Your task to perform on an android device: Open Yahoo.com Image 0: 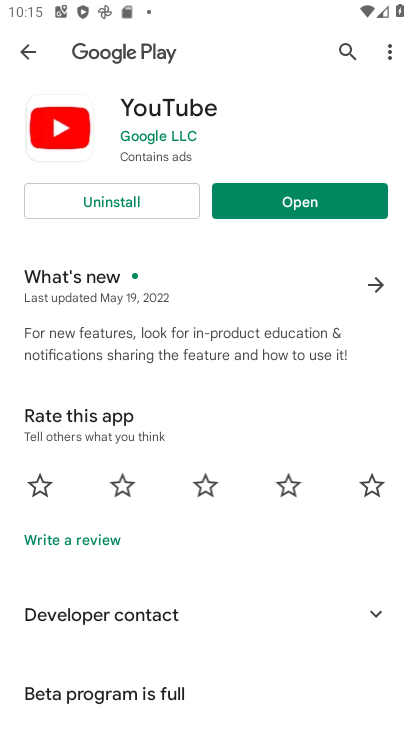
Step 0: press home button
Your task to perform on an android device: Open Yahoo.com Image 1: 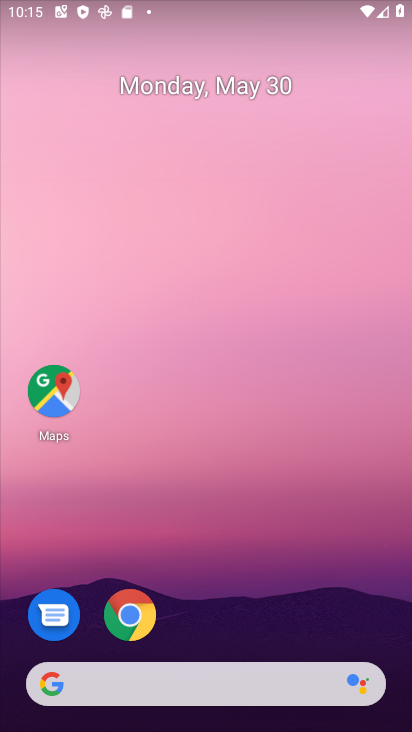
Step 1: click (137, 620)
Your task to perform on an android device: Open Yahoo.com Image 2: 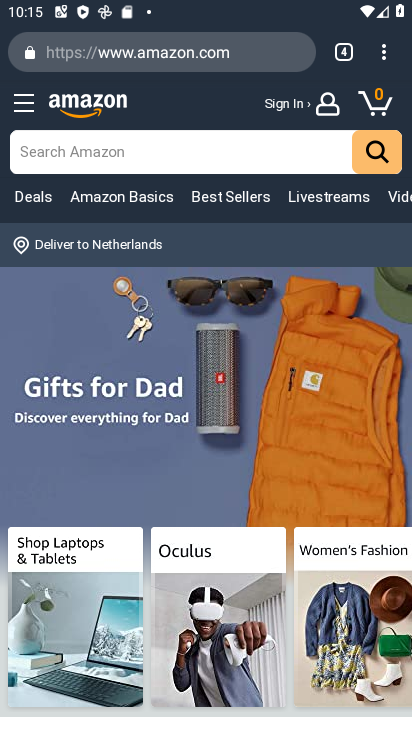
Step 2: click (338, 48)
Your task to perform on an android device: Open Yahoo.com Image 3: 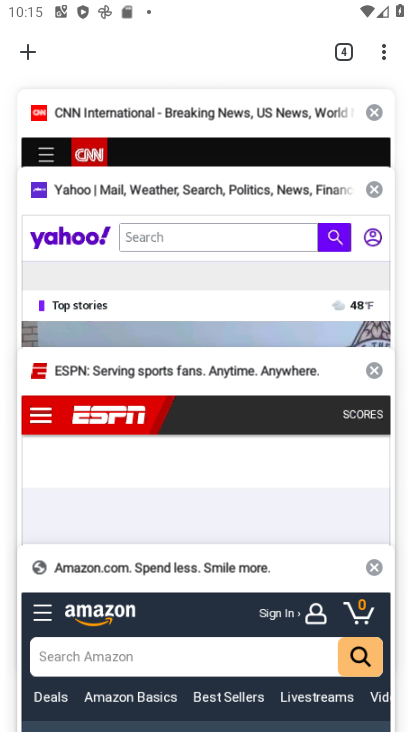
Step 3: click (83, 242)
Your task to perform on an android device: Open Yahoo.com Image 4: 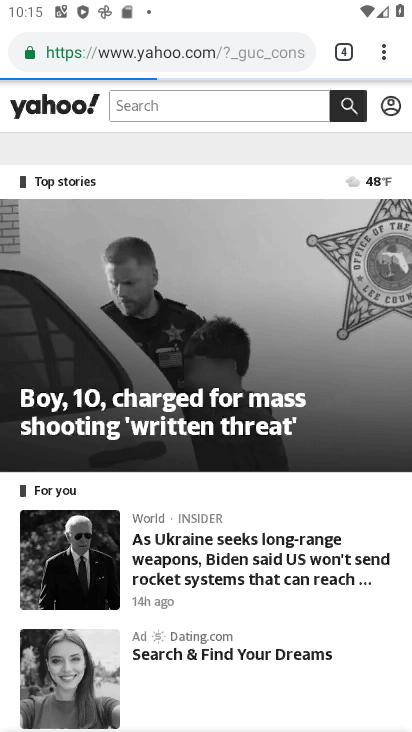
Step 4: task complete